Your task to perform on an android device: remove spam from my inbox in the gmail app Image 0: 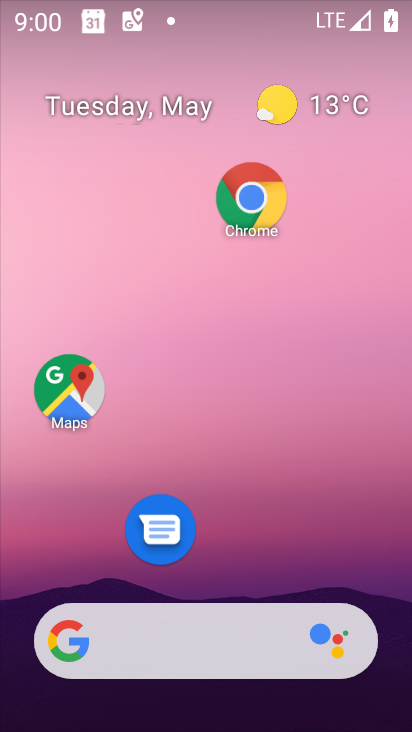
Step 0: task complete